Your task to perform on an android device: change text size in settings app Image 0: 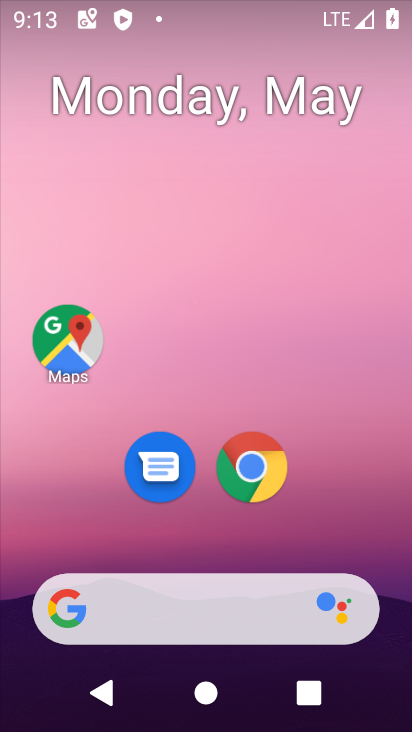
Step 0: press home button
Your task to perform on an android device: change text size in settings app Image 1: 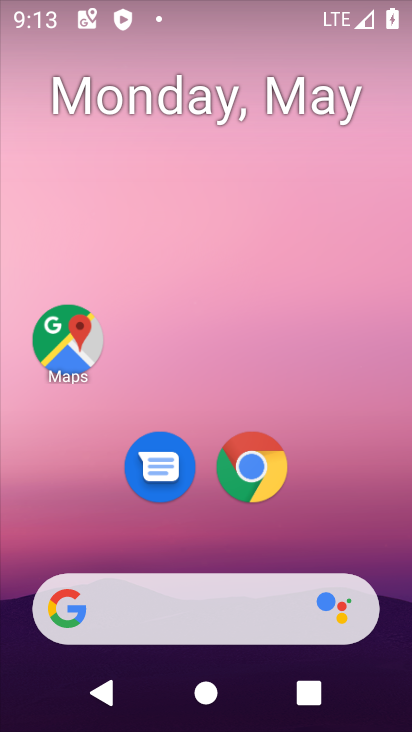
Step 1: drag from (327, 430) to (212, 1)
Your task to perform on an android device: change text size in settings app Image 2: 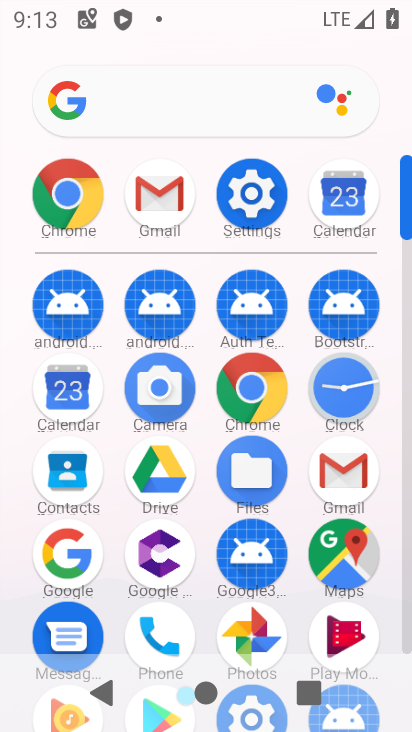
Step 2: click (246, 217)
Your task to perform on an android device: change text size in settings app Image 3: 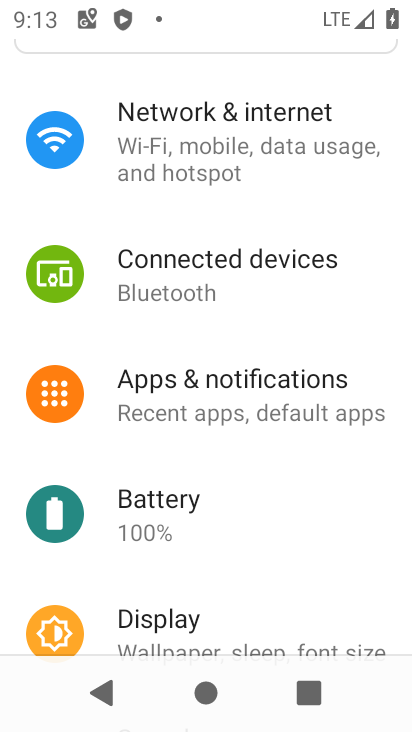
Step 3: click (230, 619)
Your task to perform on an android device: change text size in settings app Image 4: 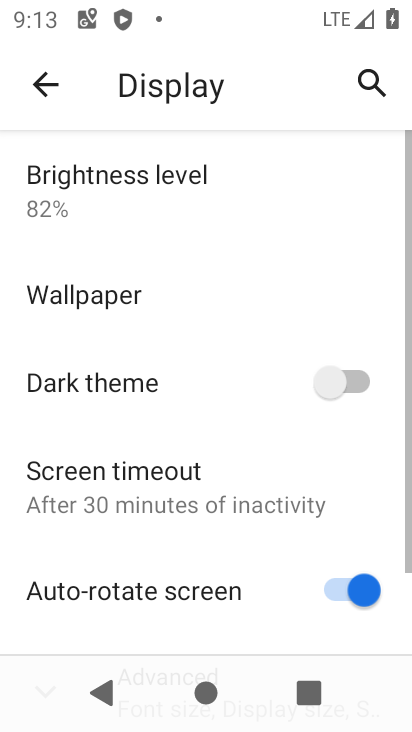
Step 4: drag from (170, 554) to (142, 149)
Your task to perform on an android device: change text size in settings app Image 5: 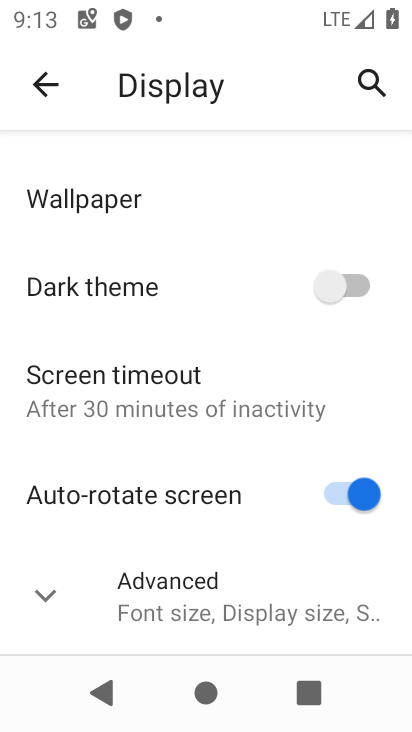
Step 5: click (172, 575)
Your task to perform on an android device: change text size in settings app Image 6: 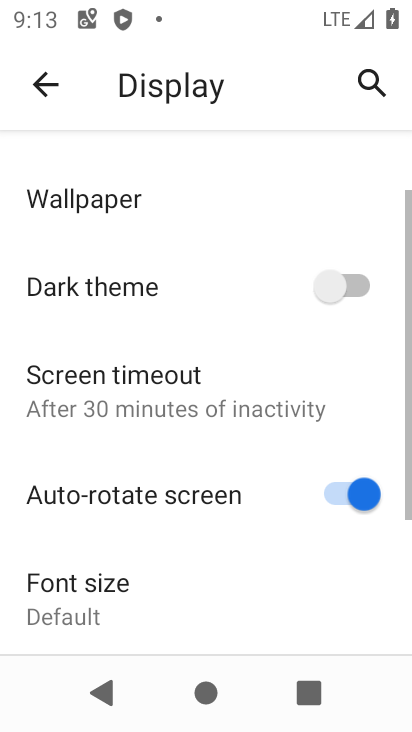
Step 6: click (173, 607)
Your task to perform on an android device: change text size in settings app Image 7: 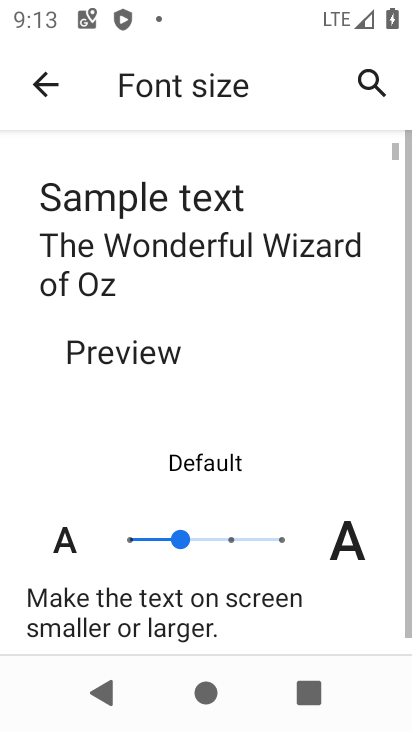
Step 7: drag from (238, 593) to (214, 256)
Your task to perform on an android device: change text size in settings app Image 8: 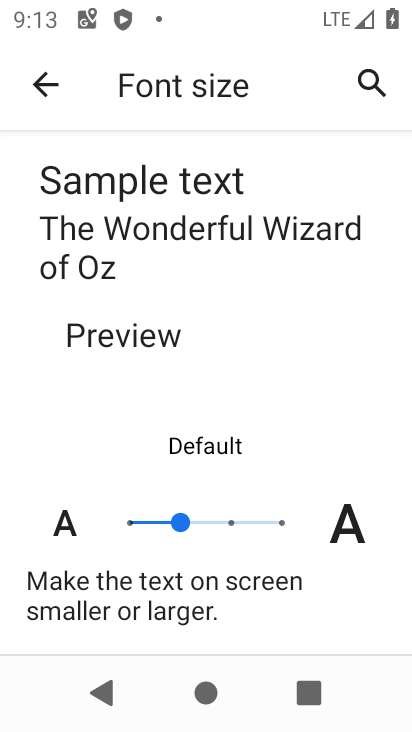
Step 8: click (128, 521)
Your task to perform on an android device: change text size in settings app Image 9: 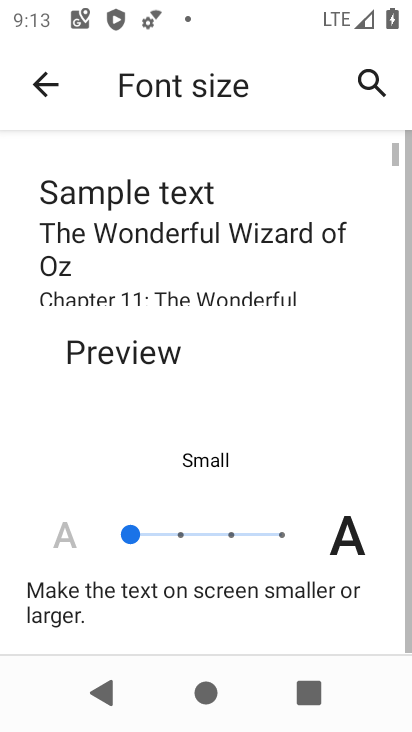
Step 9: task complete